Your task to perform on an android device: see creations saved in the google photos Image 0: 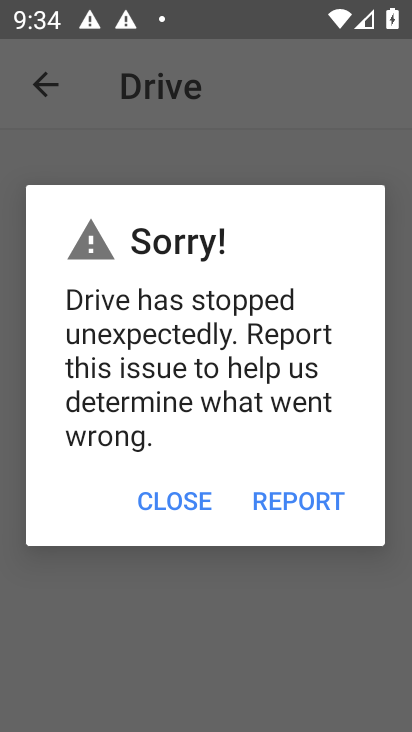
Step 0: press home button
Your task to perform on an android device: see creations saved in the google photos Image 1: 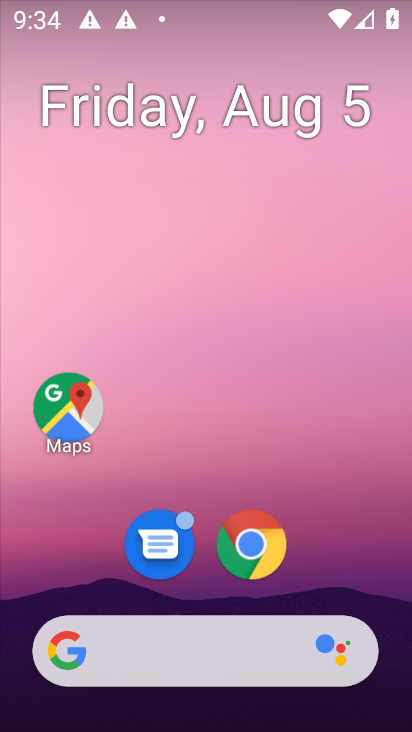
Step 1: drag from (340, 417) to (327, 180)
Your task to perform on an android device: see creations saved in the google photos Image 2: 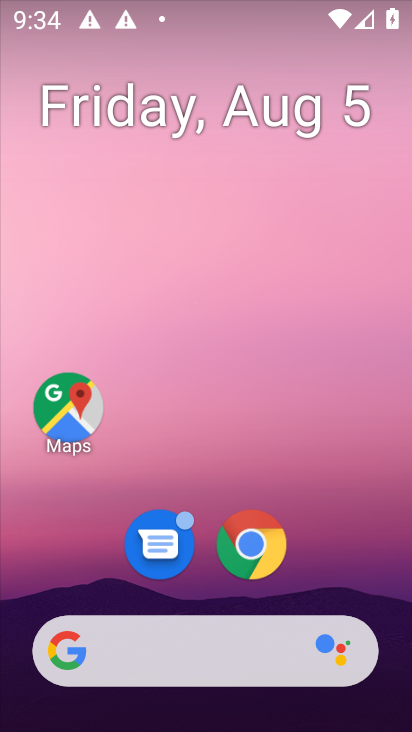
Step 2: drag from (291, 436) to (266, 82)
Your task to perform on an android device: see creations saved in the google photos Image 3: 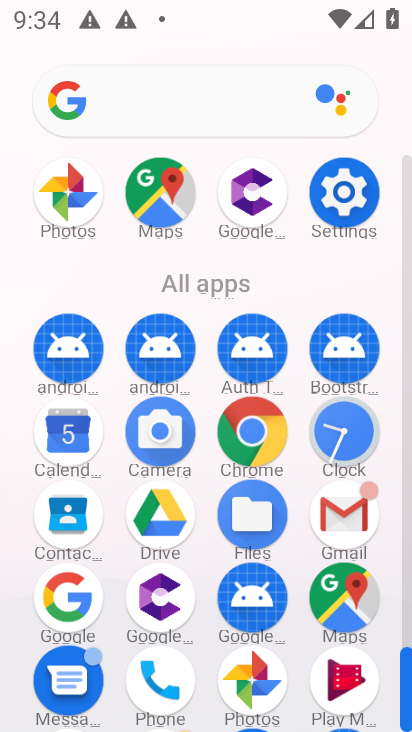
Step 3: click (263, 686)
Your task to perform on an android device: see creations saved in the google photos Image 4: 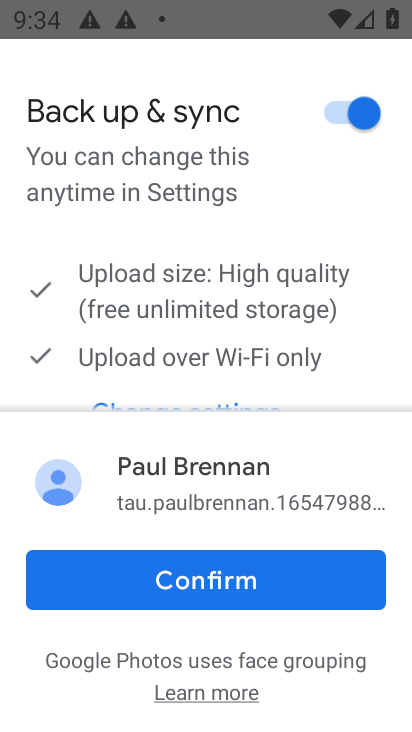
Step 4: click (292, 585)
Your task to perform on an android device: see creations saved in the google photos Image 5: 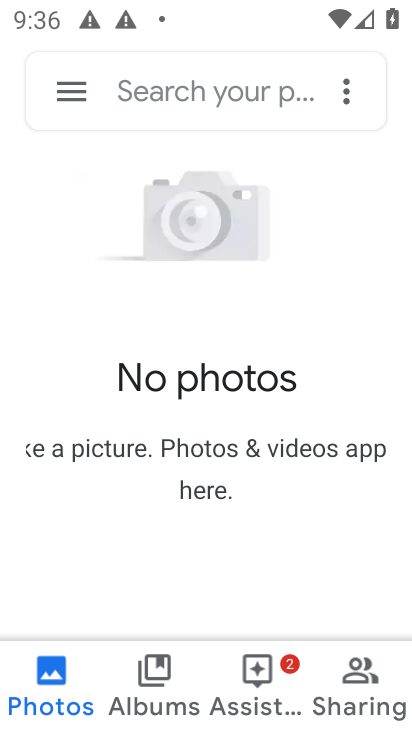
Step 5: task complete